Your task to perform on an android device: toggle airplane mode Image 0: 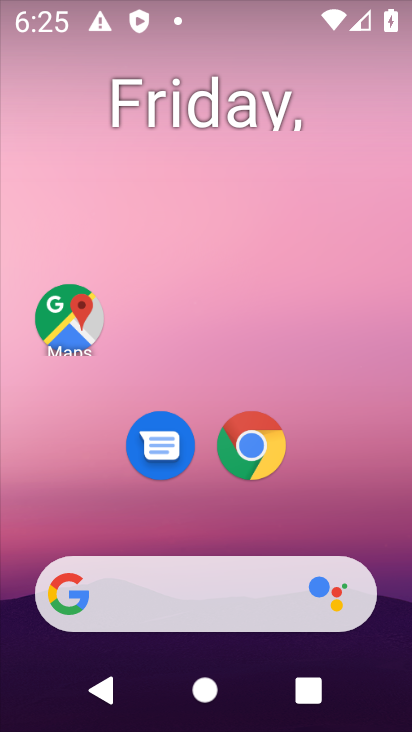
Step 0: drag from (223, 31) to (243, 63)
Your task to perform on an android device: toggle airplane mode Image 1: 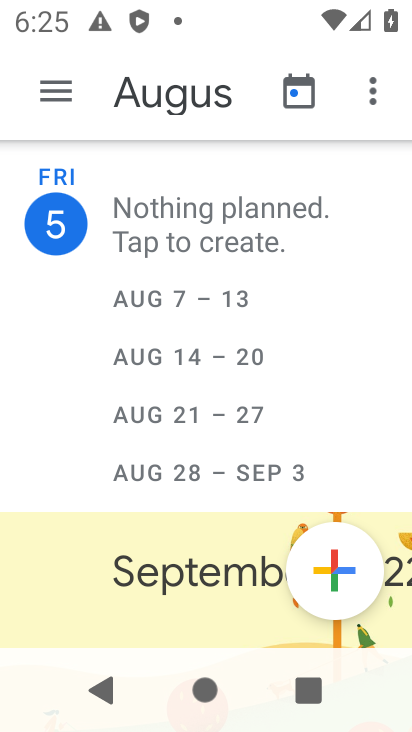
Step 1: press home button
Your task to perform on an android device: toggle airplane mode Image 2: 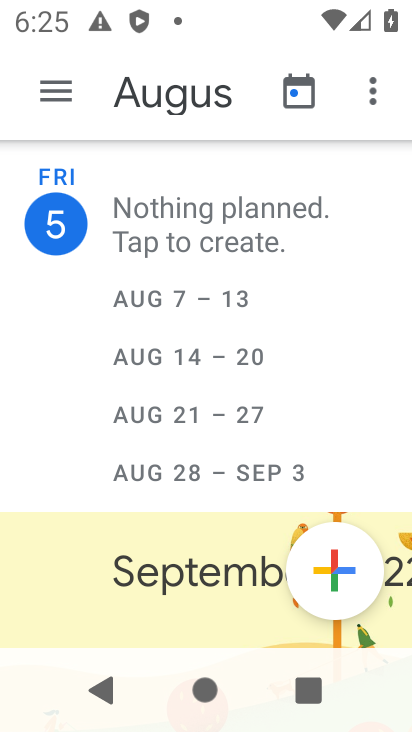
Step 2: press home button
Your task to perform on an android device: toggle airplane mode Image 3: 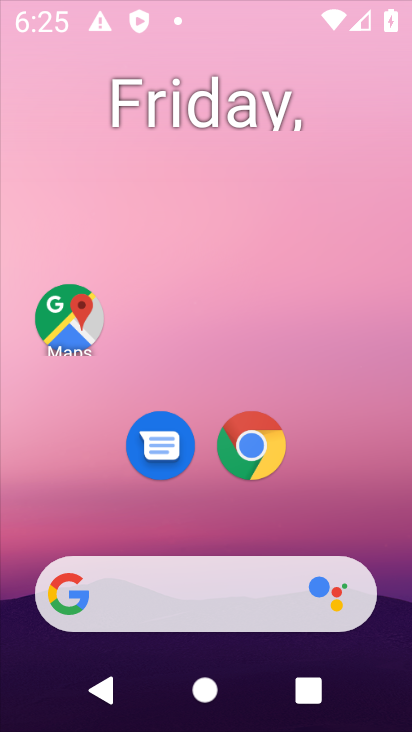
Step 3: drag from (199, 431) to (259, 29)
Your task to perform on an android device: toggle airplane mode Image 4: 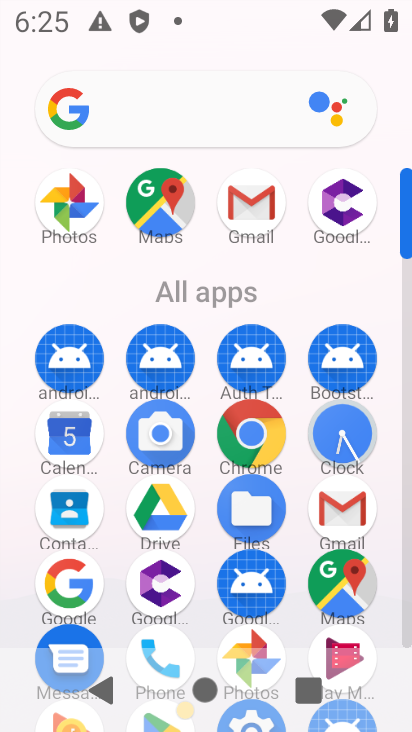
Step 4: drag from (204, 622) to (266, 195)
Your task to perform on an android device: toggle airplane mode Image 5: 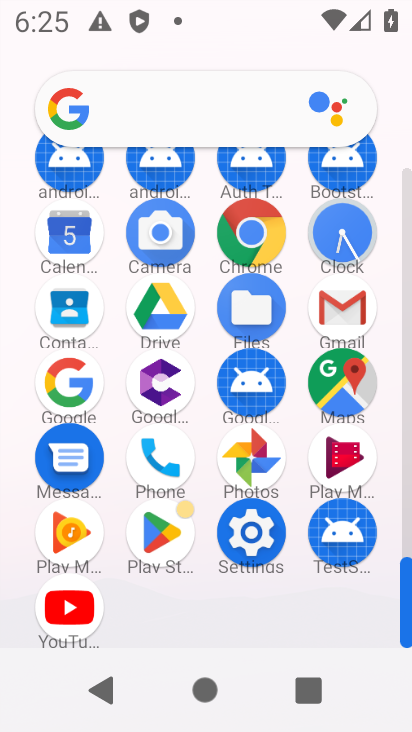
Step 5: click (246, 539)
Your task to perform on an android device: toggle airplane mode Image 6: 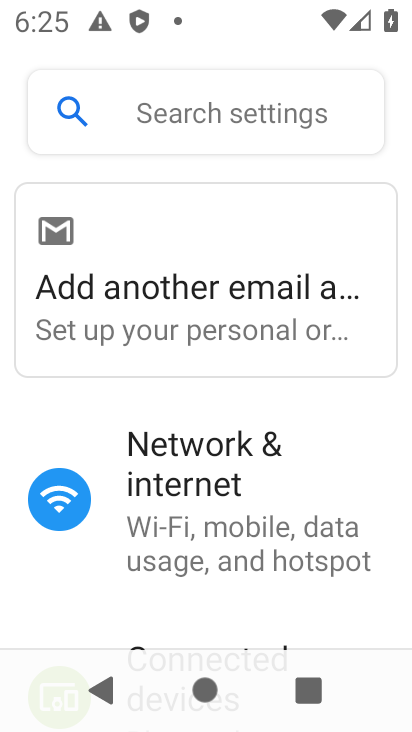
Step 6: click (190, 129)
Your task to perform on an android device: toggle airplane mode Image 7: 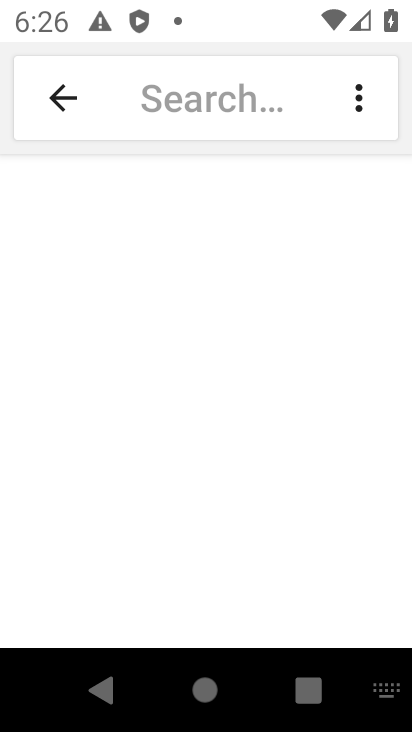
Step 7: click (64, 94)
Your task to perform on an android device: toggle airplane mode Image 8: 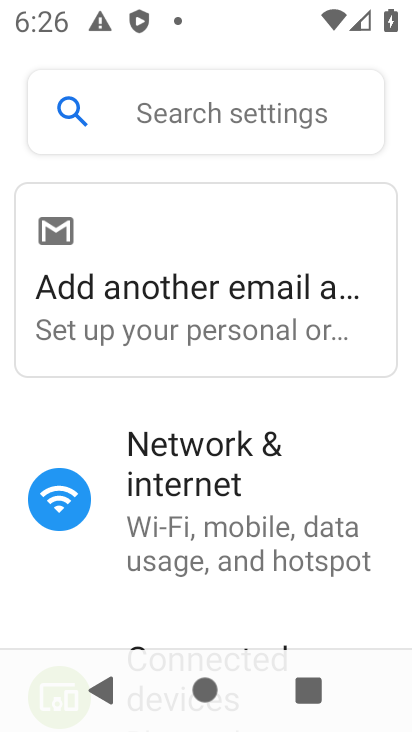
Step 8: drag from (205, 280) to (278, 3)
Your task to perform on an android device: toggle airplane mode Image 9: 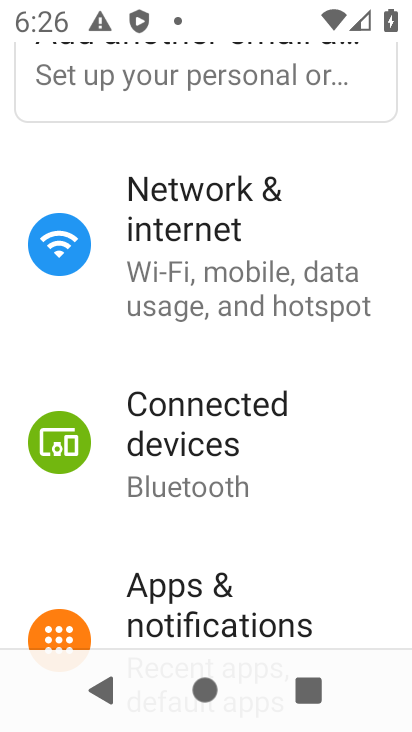
Step 9: click (195, 215)
Your task to perform on an android device: toggle airplane mode Image 10: 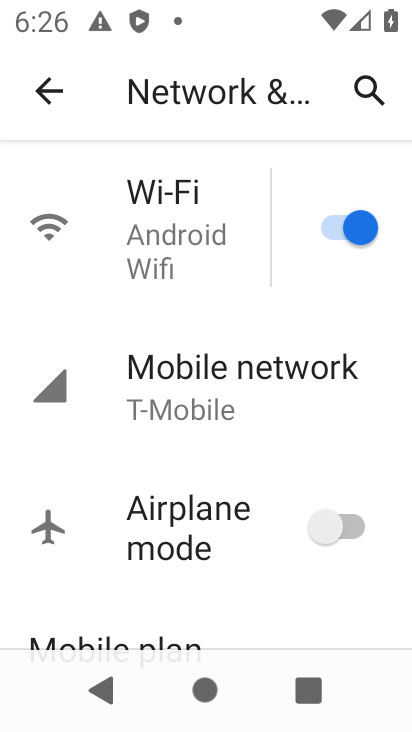
Step 10: drag from (193, 547) to (244, 303)
Your task to perform on an android device: toggle airplane mode Image 11: 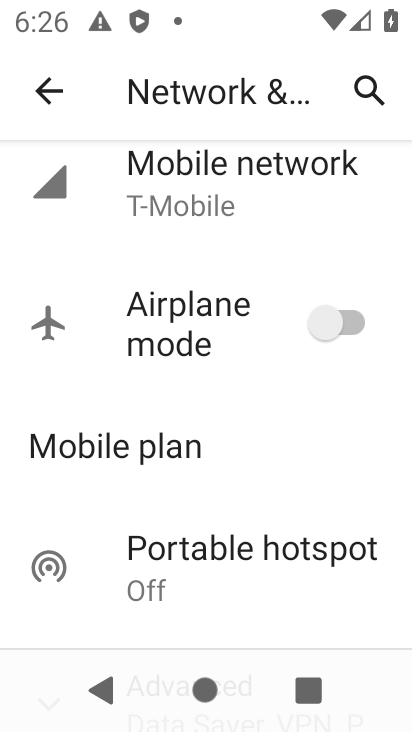
Step 11: click (269, 331)
Your task to perform on an android device: toggle airplane mode Image 12: 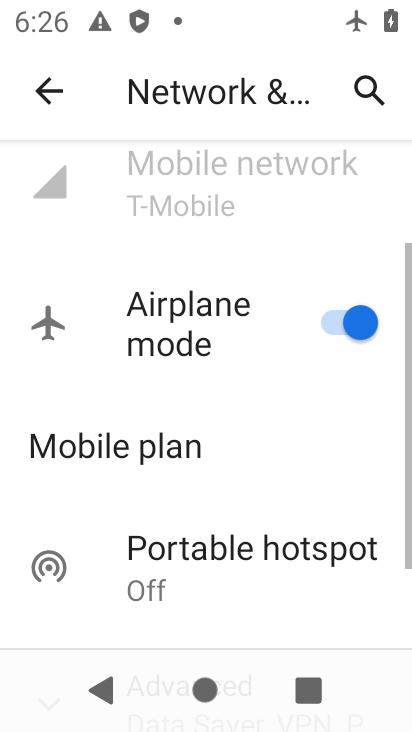
Step 12: task complete